Your task to perform on an android device: star an email in the gmail app Image 0: 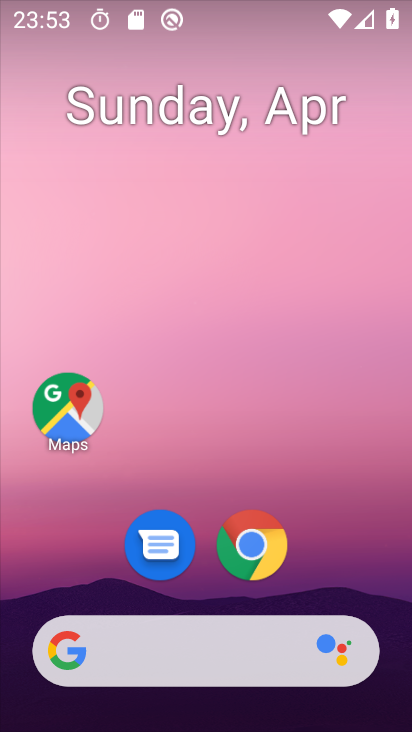
Step 0: drag from (340, 355) to (349, 225)
Your task to perform on an android device: star an email in the gmail app Image 1: 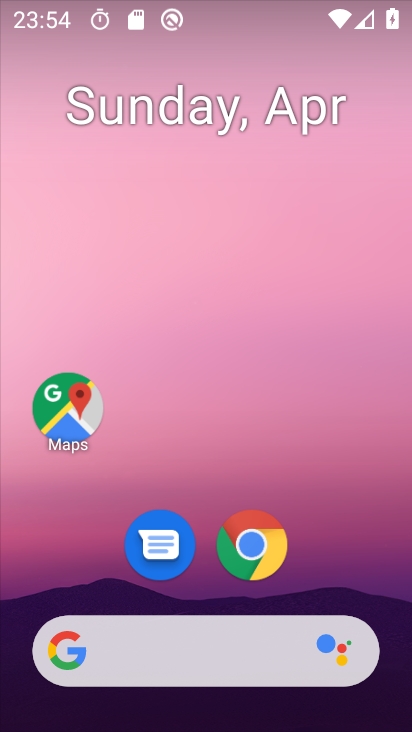
Step 1: drag from (302, 569) to (344, 238)
Your task to perform on an android device: star an email in the gmail app Image 2: 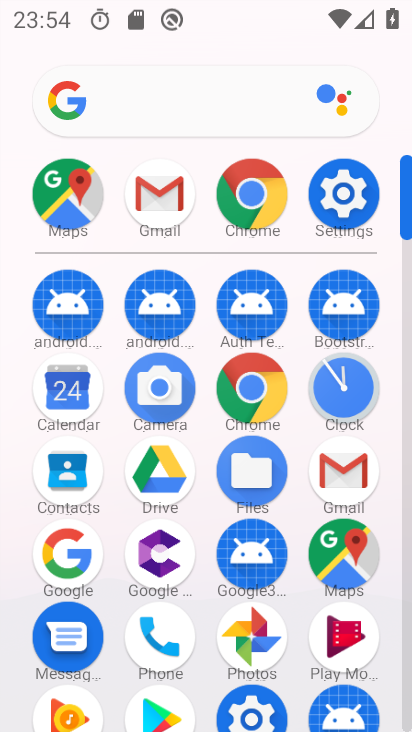
Step 2: click (156, 189)
Your task to perform on an android device: star an email in the gmail app Image 3: 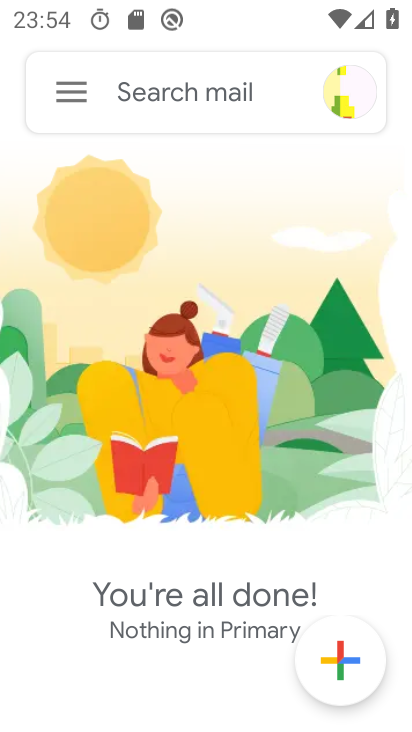
Step 3: click (61, 91)
Your task to perform on an android device: star an email in the gmail app Image 4: 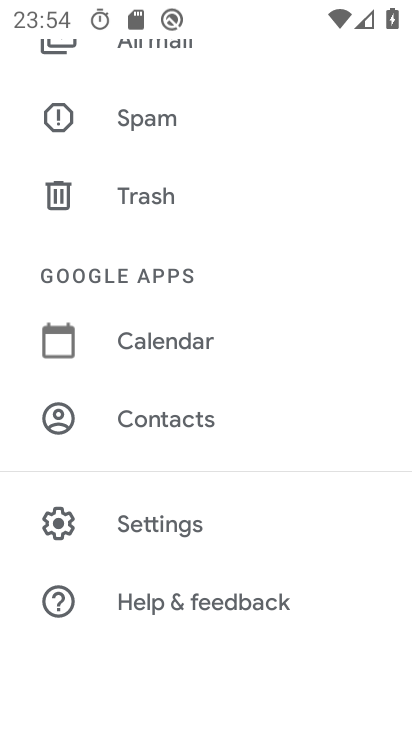
Step 4: drag from (206, 123) to (171, 731)
Your task to perform on an android device: star an email in the gmail app Image 5: 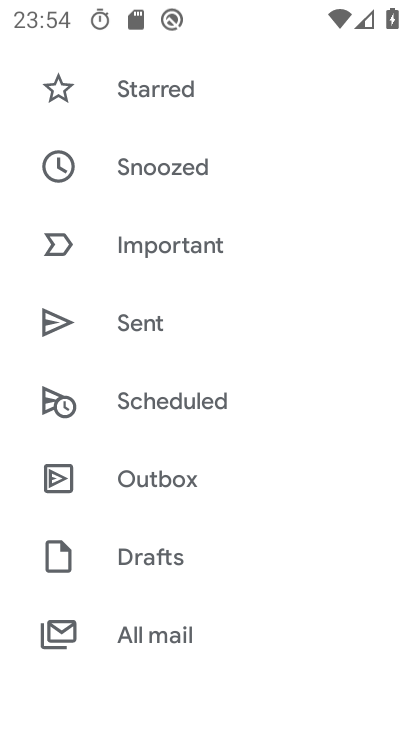
Step 5: click (179, 81)
Your task to perform on an android device: star an email in the gmail app Image 6: 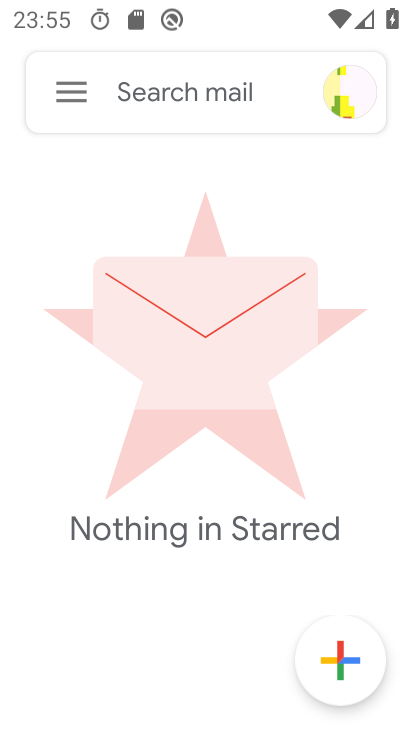
Step 6: task complete